Your task to perform on an android device: Open CNN.com Image 0: 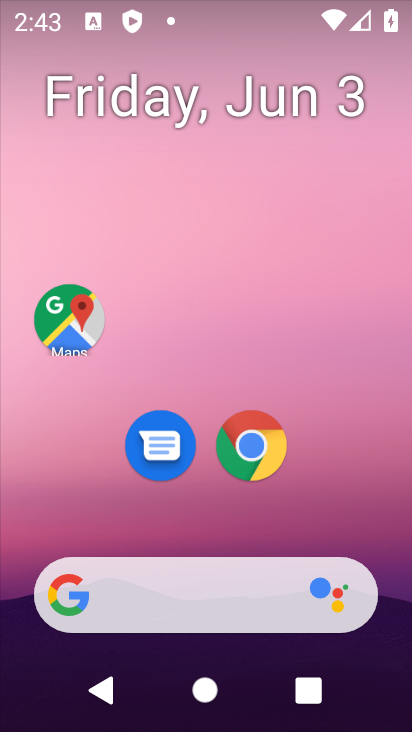
Step 0: click (220, 590)
Your task to perform on an android device: Open CNN.com Image 1: 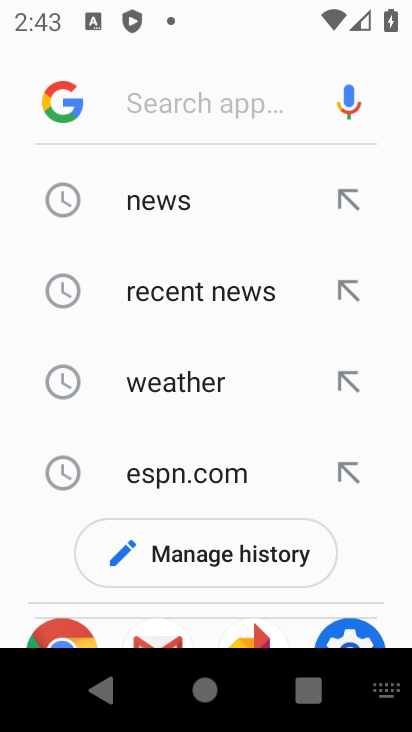
Step 1: type "cnn"
Your task to perform on an android device: Open CNN.com Image 2: 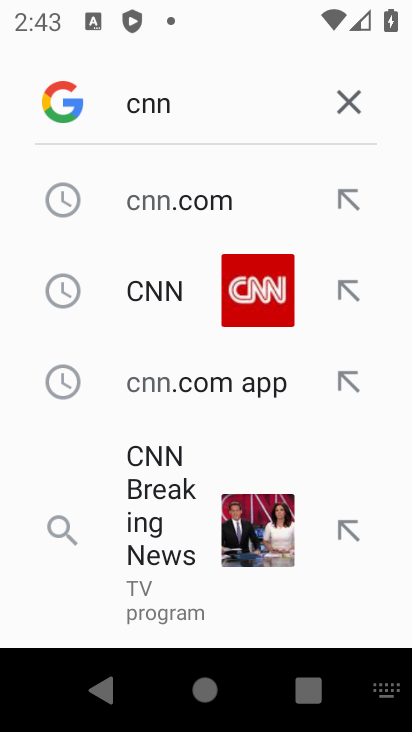
Step 2: click (185, 305)
Your task to perform on an android device: Open CNN.com Image 3: 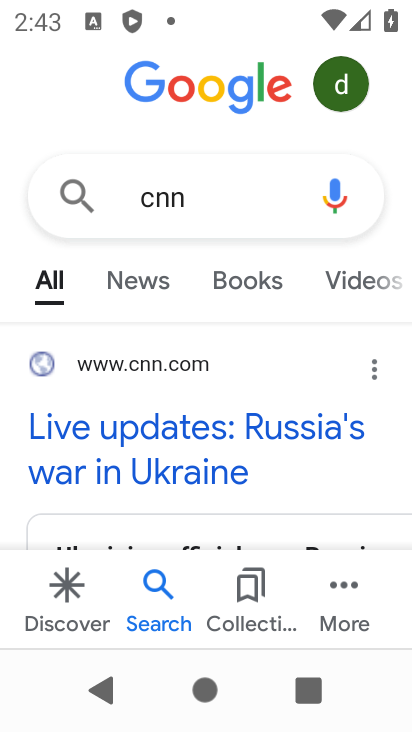
Step 3: task complete